Your task to perform on an android device: turn vacation reply on in the gmail app Image 0: 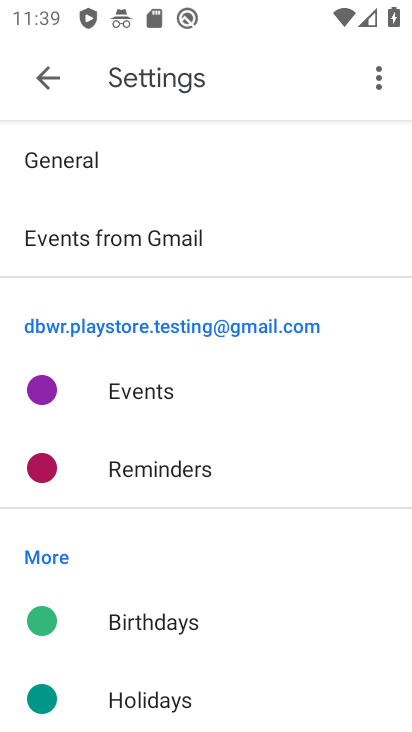
Step 0: click (30, 77)
Your task to perform on an android device: turn vacation reply on in the gmail app Image 1: 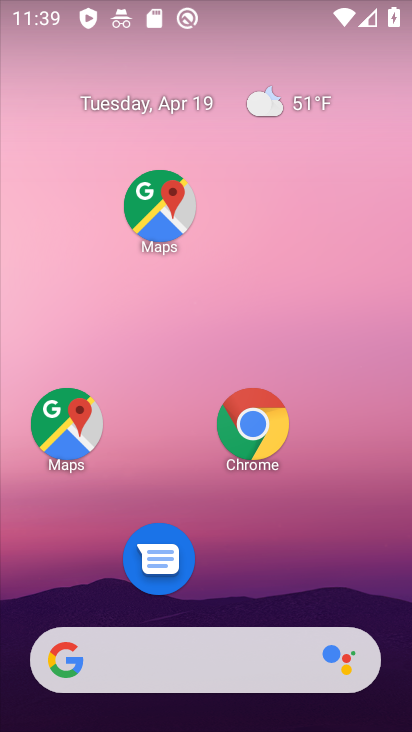
Step 1: drag from (136, 290) to (57, 87)
Your task to perform on an android device: turn vacation reply on in the gmail app Image 2: 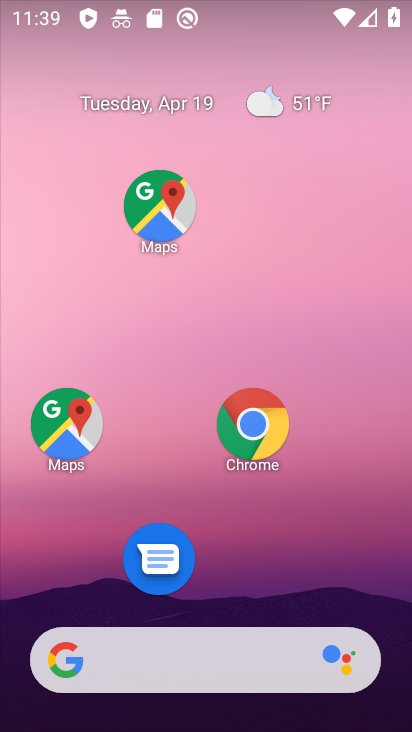
Step 2: click (132, 249)
Your task to perform on an android device: turn vacation reply on in the gmail app Image 3: 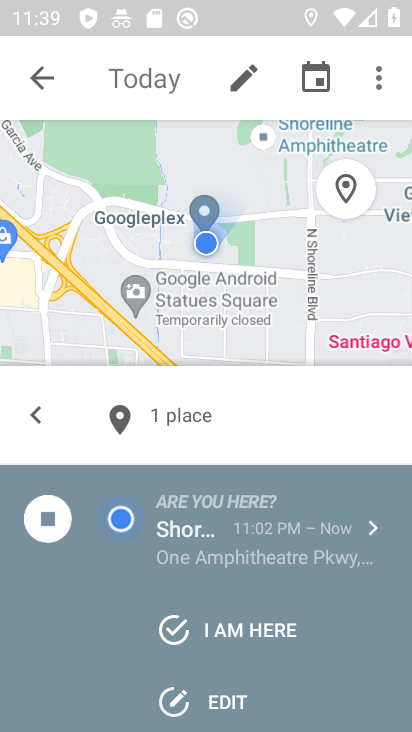
Step 3: click (36, 71)
Your task to perform on an android device: turn vacation reply on in the gmail app Image 4: 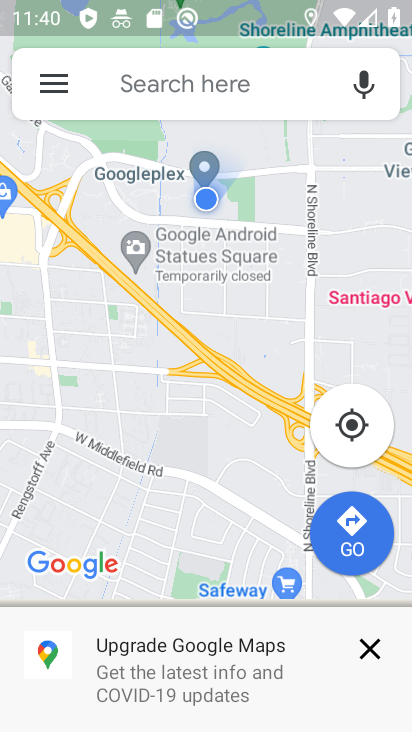
Step 4: press home button
Your task to perform on an android device: turn vacation reply on in the gmail app Image 5: 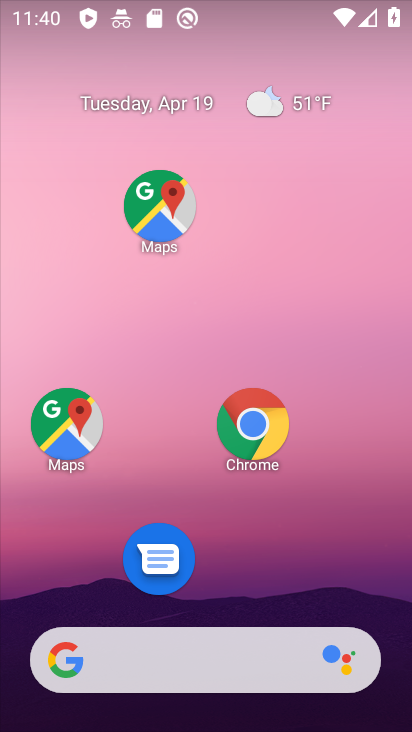
Step 5: drag from (363, 660) to (88, 1)
Your task to perform on an android device: turn vacation reply on in the gmail app Image 6: 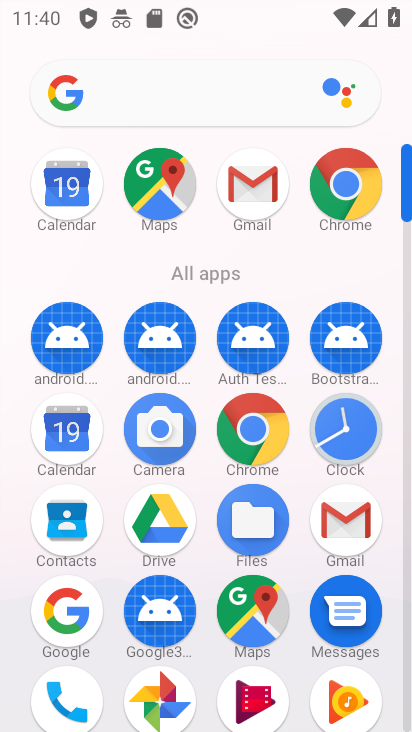
Step 6: drag from (310, 564) to (130, 197)
Your task to perform on an android device: turn vacation reply on in the gmail app Image 7: 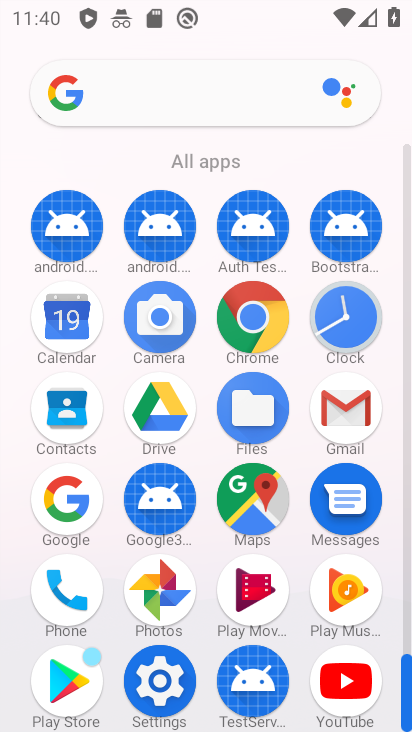
Step 7: click (328, 405)
Your task to perform on an android device: turn vacation reply on in the gmail app Image 8: 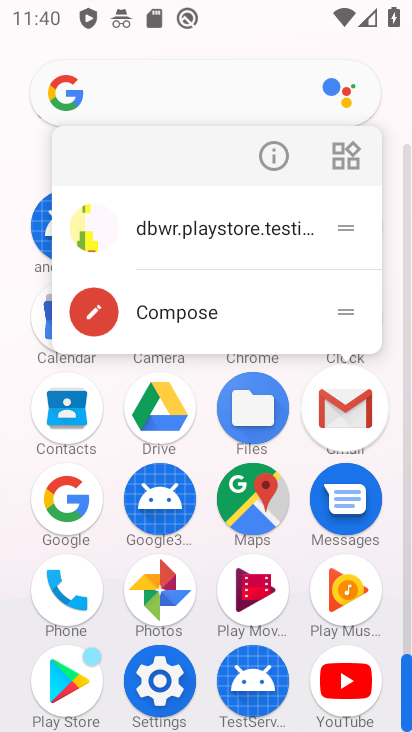
Step 8: drag from (340, 438) to (364, 382)
Your task to perform on an android device: turn vacation reply on in the gmail app Image 9: 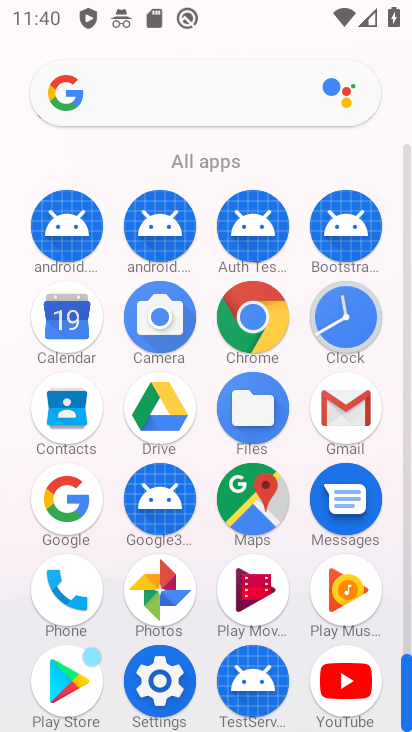
Step 9: drag from (342, 409) to (349, 376)
Your task to perform on an android device: turn vacation reply on in the gmail app Image 10: 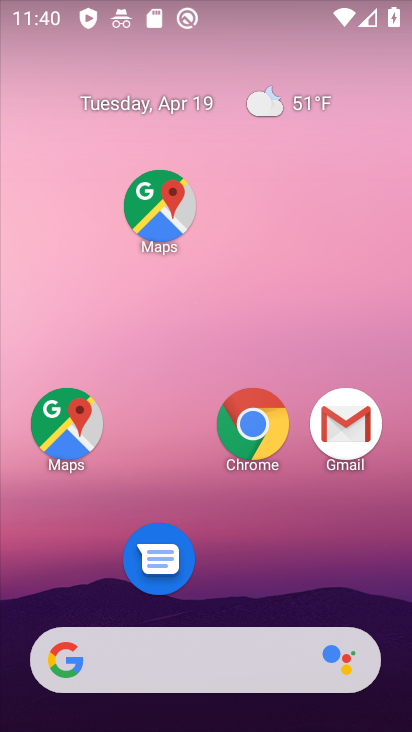
Step 10: click (362, 414)
Your task to perform on an android device: turn vacation reply on in the gmail app Image 11: 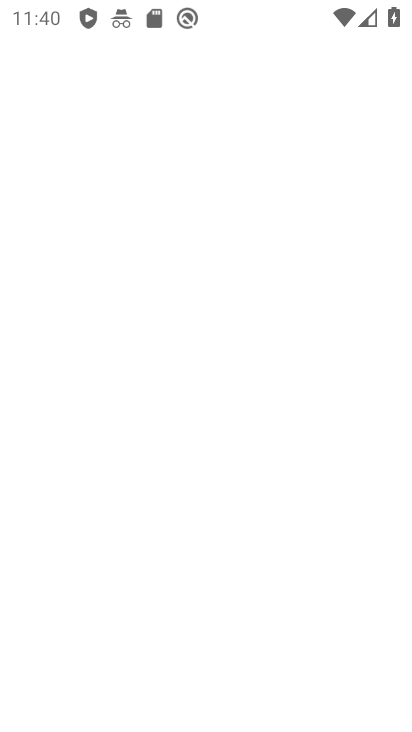
Step 11: click (346, 424)
Your task to perform on an android device: turn vacation reply on in the gmail app Image 12: 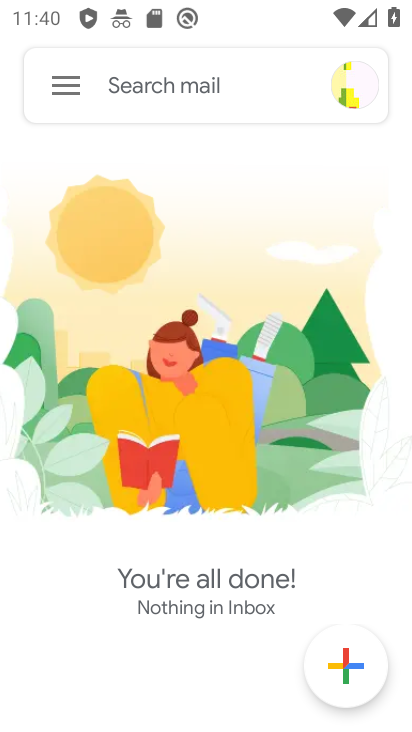
Step 12: click (63, 85)
Your task to perform on an android device: turn vacation reply on in the gmail app Image 13: 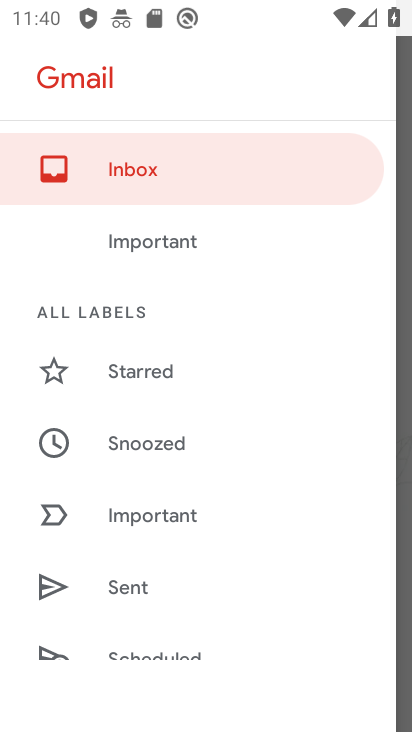
Step 13: drag from (174, 599) to (111, 295)
Your task to perform on an android device: turn vacation reply on in the gmail app Image 14: 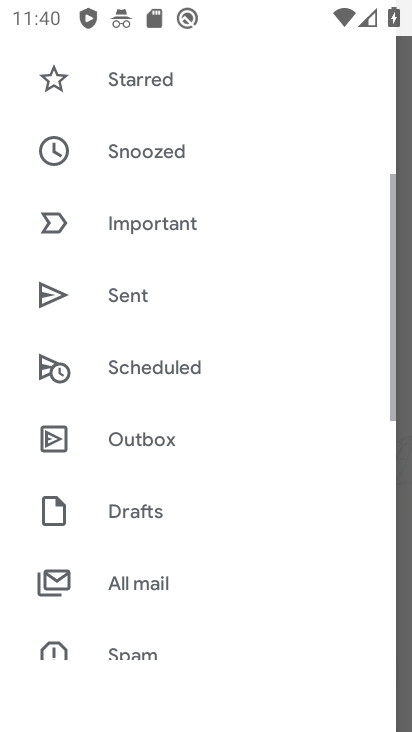
Step 14: drag from (136, 486) to (149, 257)
Your task to perform on an android device: turn vacation reply on in the gmail app Image 15: 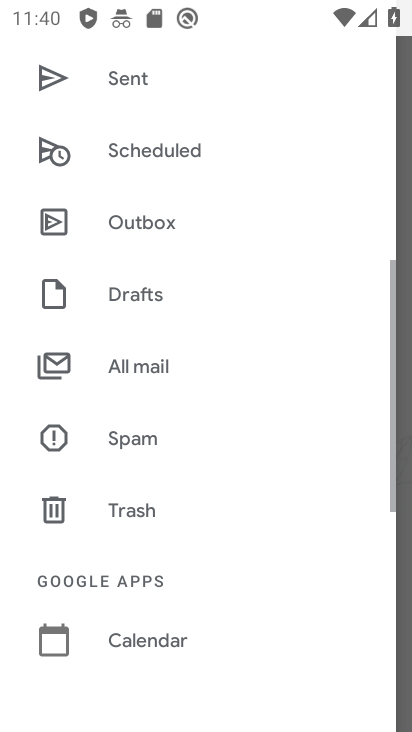
Step 15: drag from (159, 606) to (157, 233)
Your task to perform on an android device: turn vacation reply on in the gmail app Image 16: 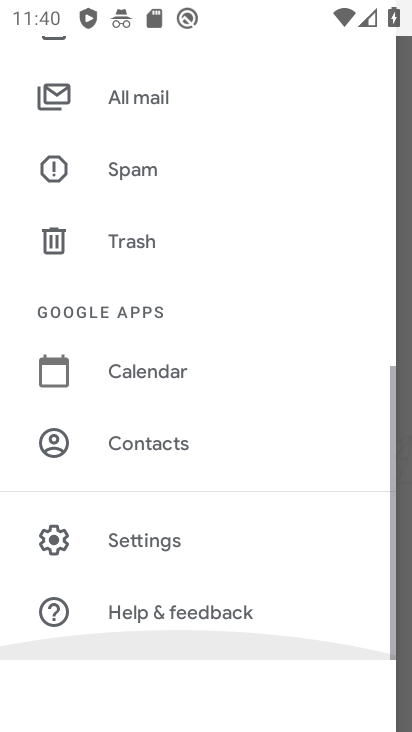
Step 16: drag from (167, 556) to (100, 251)
Your task to perform on an android device: turn vacation reply on in the gmail app Image 17: 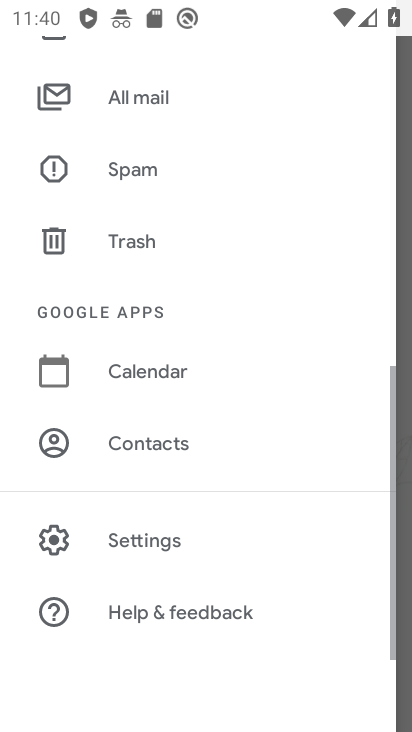
Step 17: click (134, 533)
Your task to perform on an android device: turn vacation reply on in the gmail app Image 18: 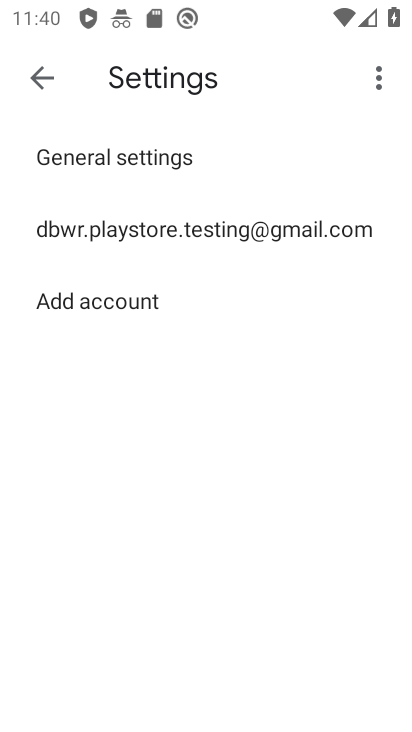
Step 18: click (134, 229)
Your task to perform on an android device: turn vacation reply on in the gmail app Image 19: 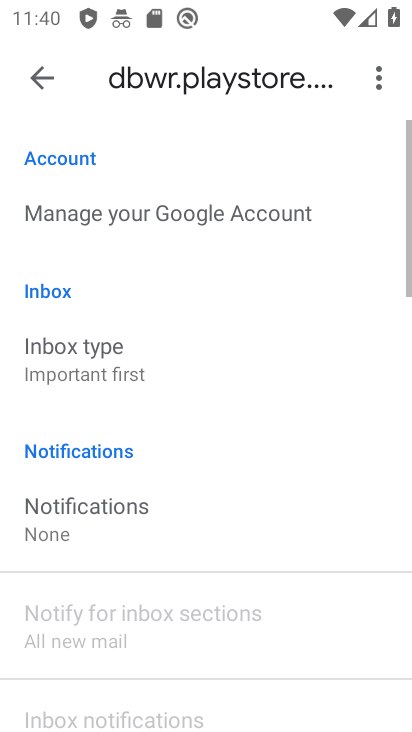
Step 19: drag from (153, 452) to (153, 194)
Your task to perform on an android device: turn vacation reply on in the gmail app Image 20: 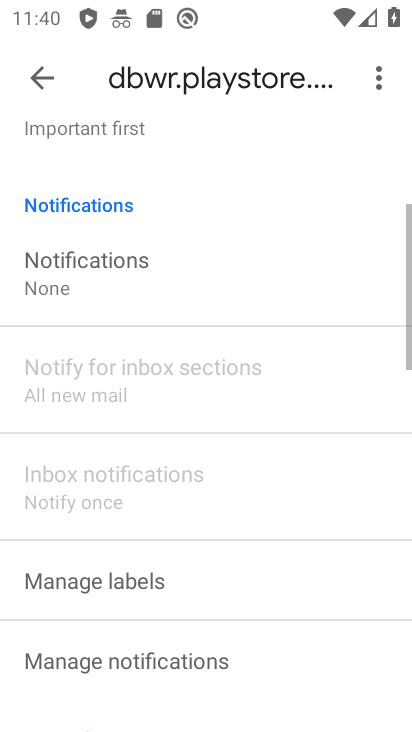
Step 20: drag from (178, 375) to (173, 79)
Your task to perform on an android device: turn vacation reply on in the gmail app Image 21: 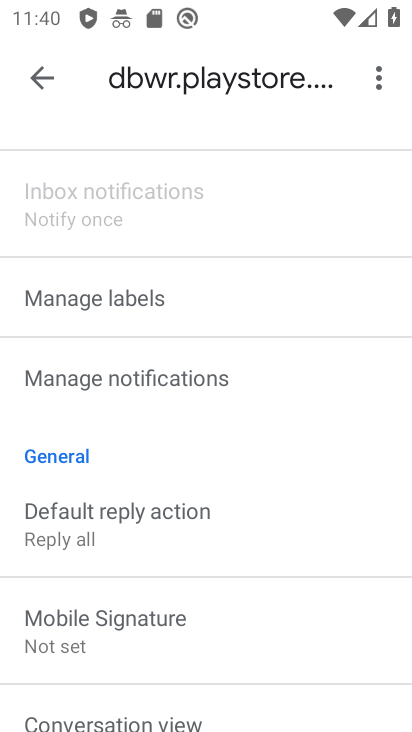
Step 21: drag from (135, 601) to (214, 363)
Your task to perform on an android device: turn vacation reply on in the gmail app Image 22: 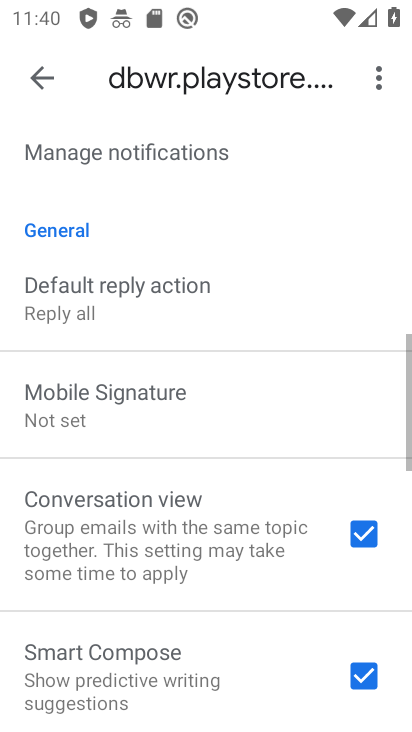
Step 22: drag from (199, 510) to (139, 100)
Your task to perform on an android device: turn vacation reply on in the gmail app Image 23: 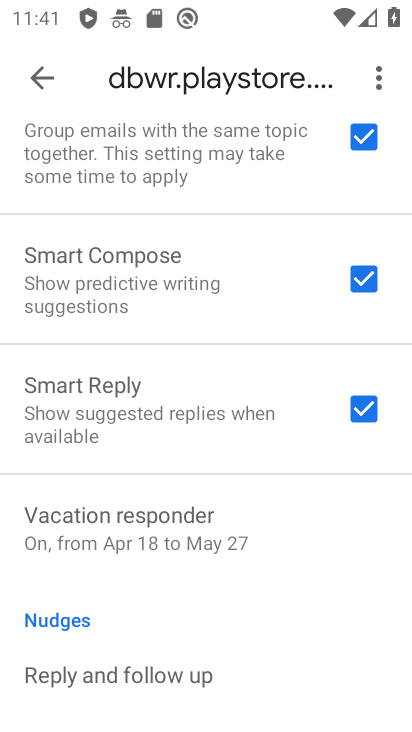
Step 23: click (169, 522)
Your task to perform on an android device: turn vacation reply on in the gmail app Image 24: 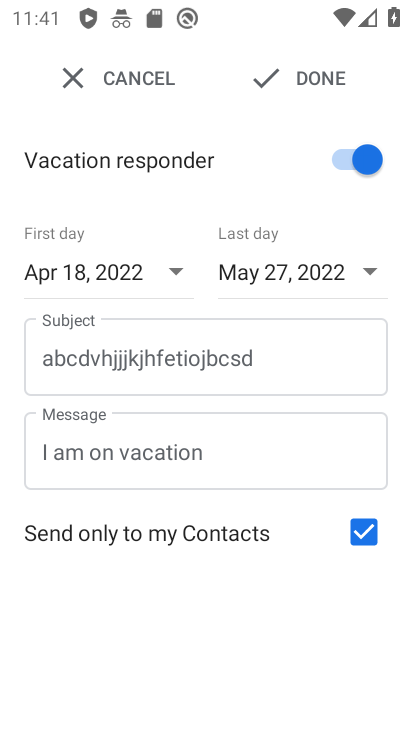
Step 24: task complete